Your task to perform on an android device: open app "Roku - Official Remote Control" (install if not already installed) and go to login screen Image 0: 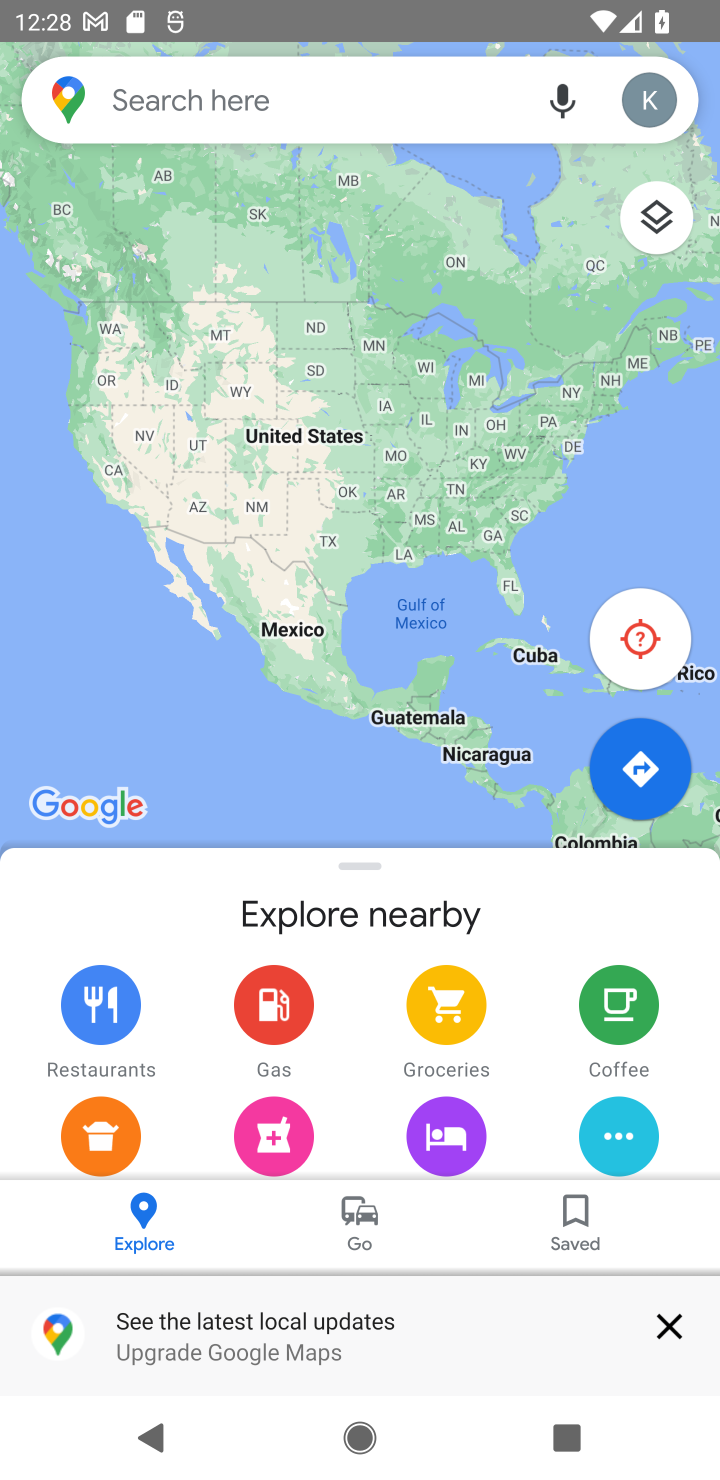
Step 0: press home button
Your task to perform on an android device: open app "Roku - Official Remote Control" (install if not already installed) and go to login screen Image 1: 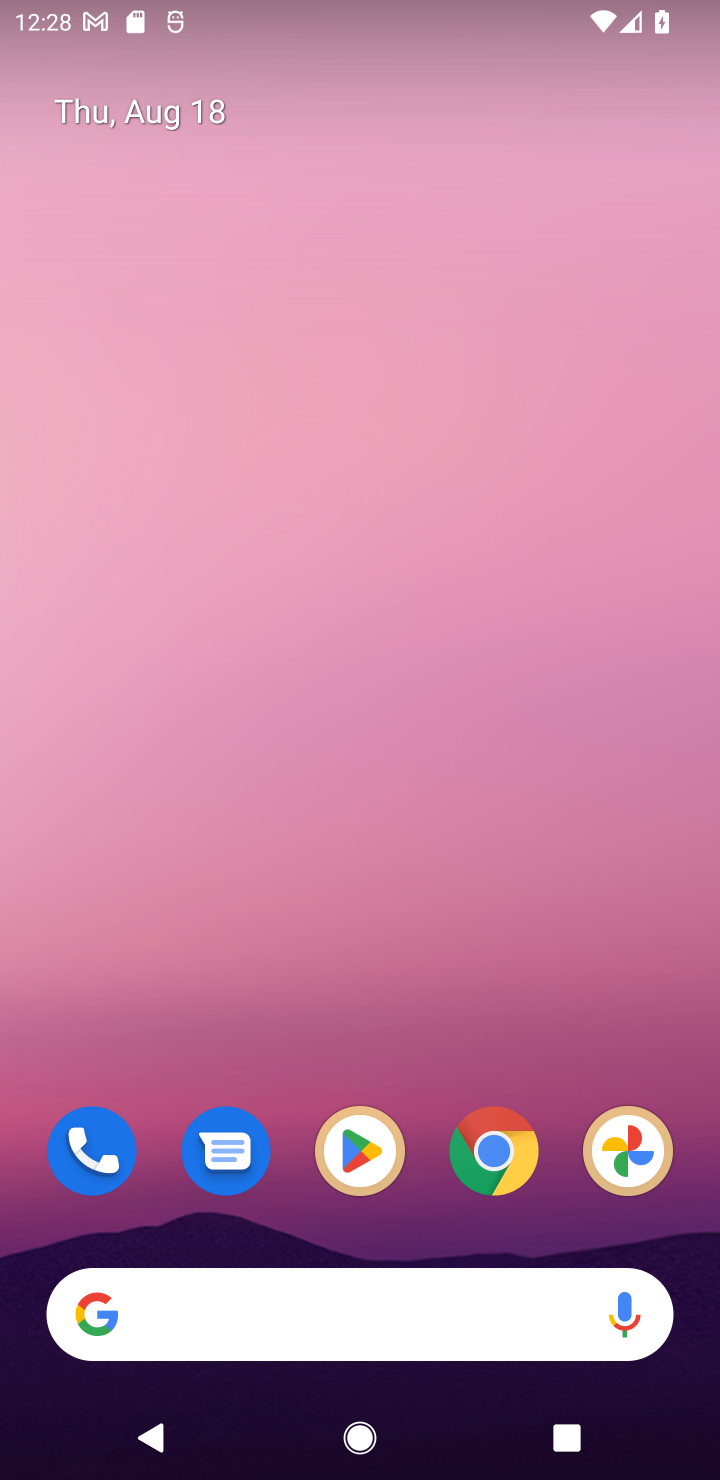
Step 1: click (355, 1140)
Your task to perform on an android device: open app "Roku - Official Remote Control" (install if not already installed) and go to login screen Image 2: 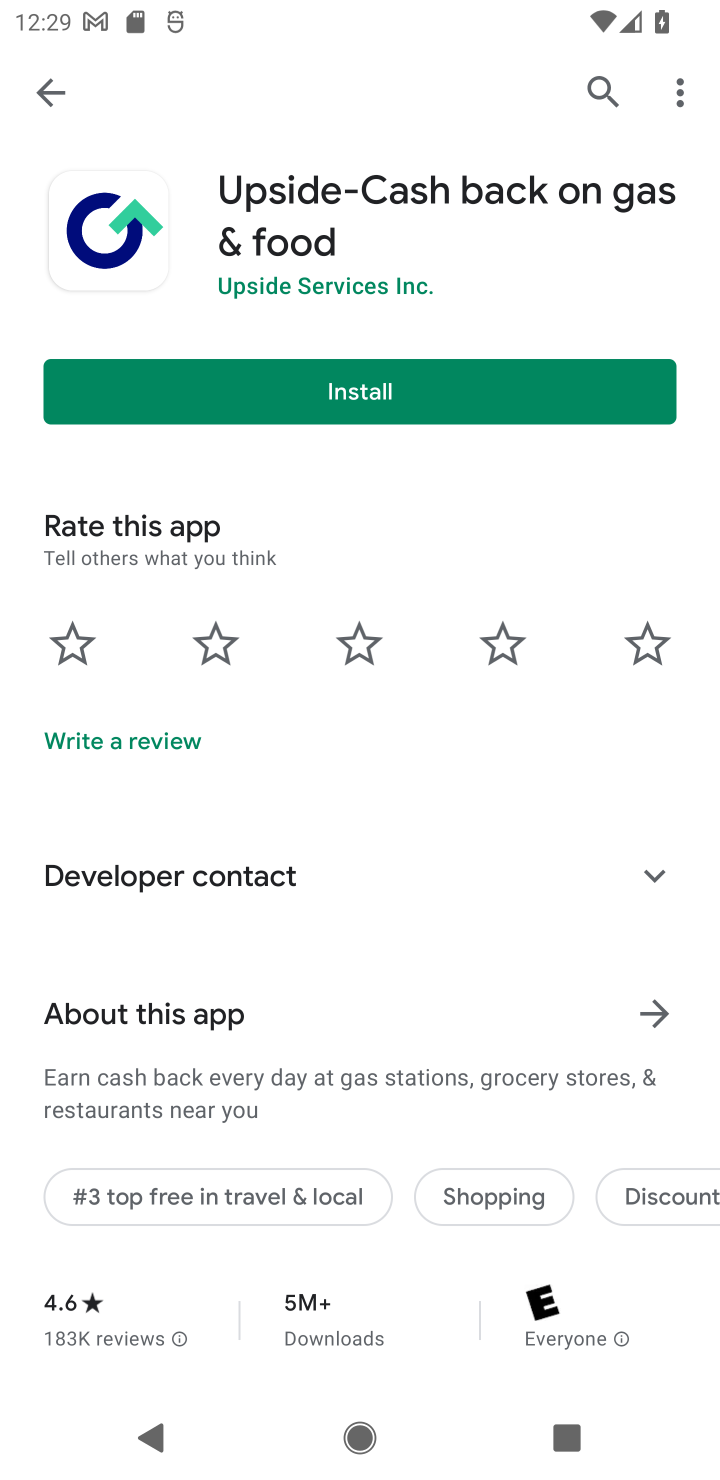
Step 2: click (40, 91)
Your task to perform on an android device: open app "Roku - Official Remote Control" (install if not already installed) and go to login screen Image 3: 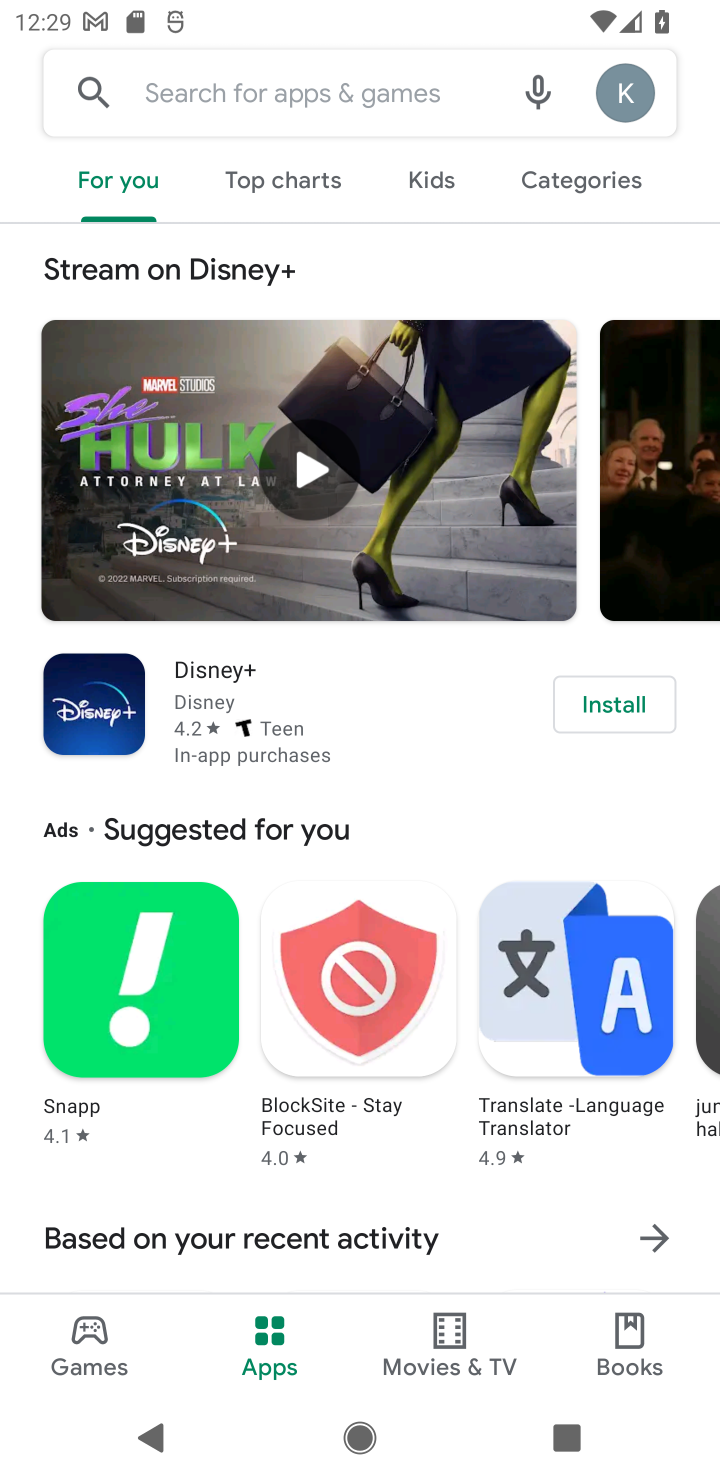
Step 3: click (277, 108)
Your task to perform on an android device: open app "Roku - Official Remote Control" (install if not already installed) and go to login screen Image 4: 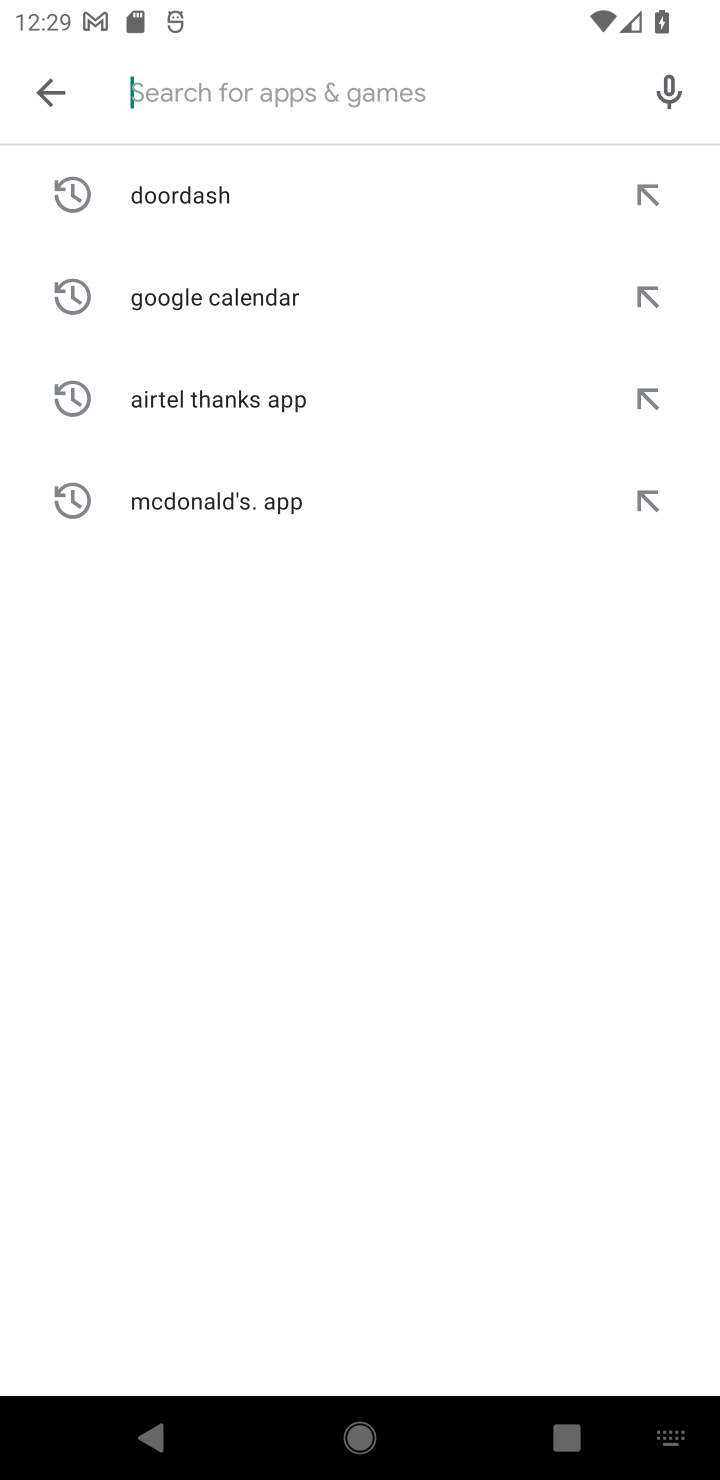
Step 4: type "Roku"
Your task to perform on an android device: open app "Roku - Official Remote Control" (install if not already installed) and go to login screen Image 5: 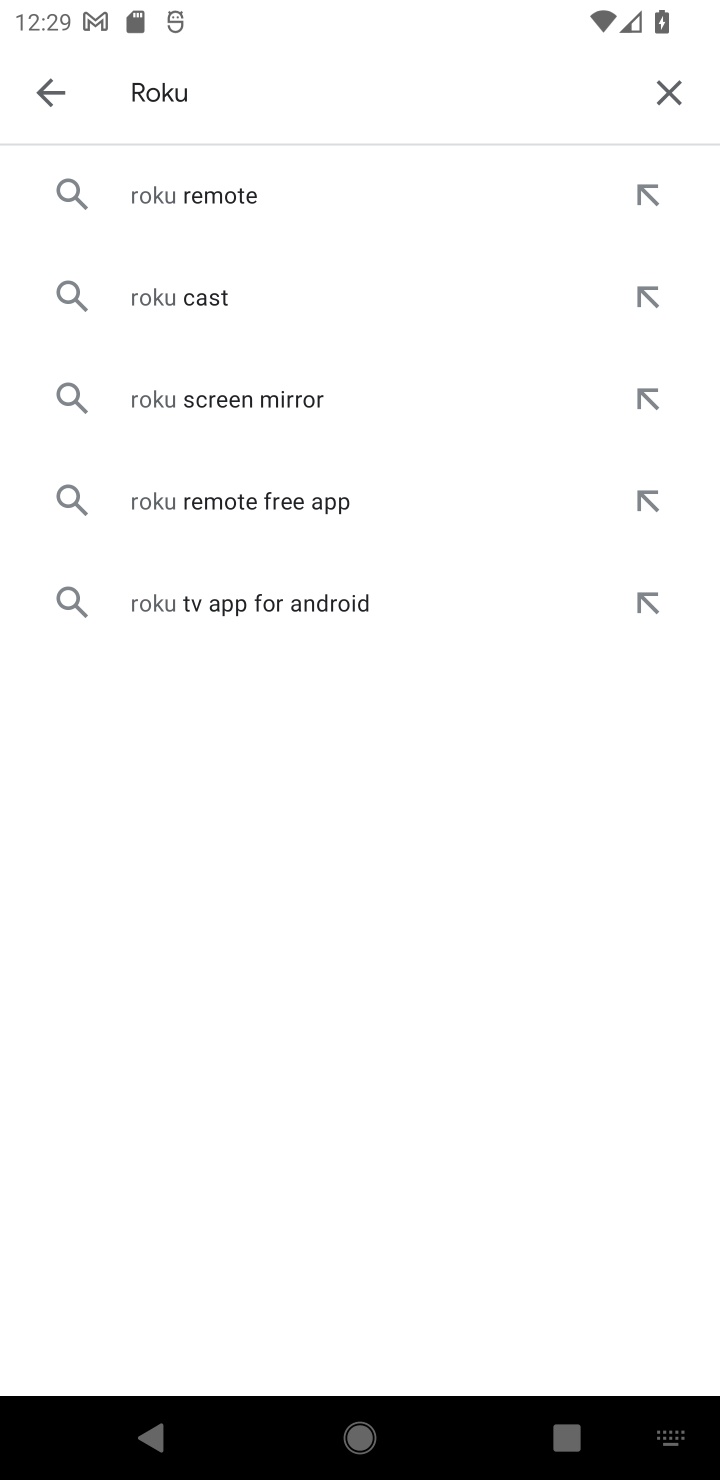
Step 5: click (661, 97)
Your task to perform on an android device: open app "Roku - Official Remote Control" (install if not already installed) and go to login screen Image 6: 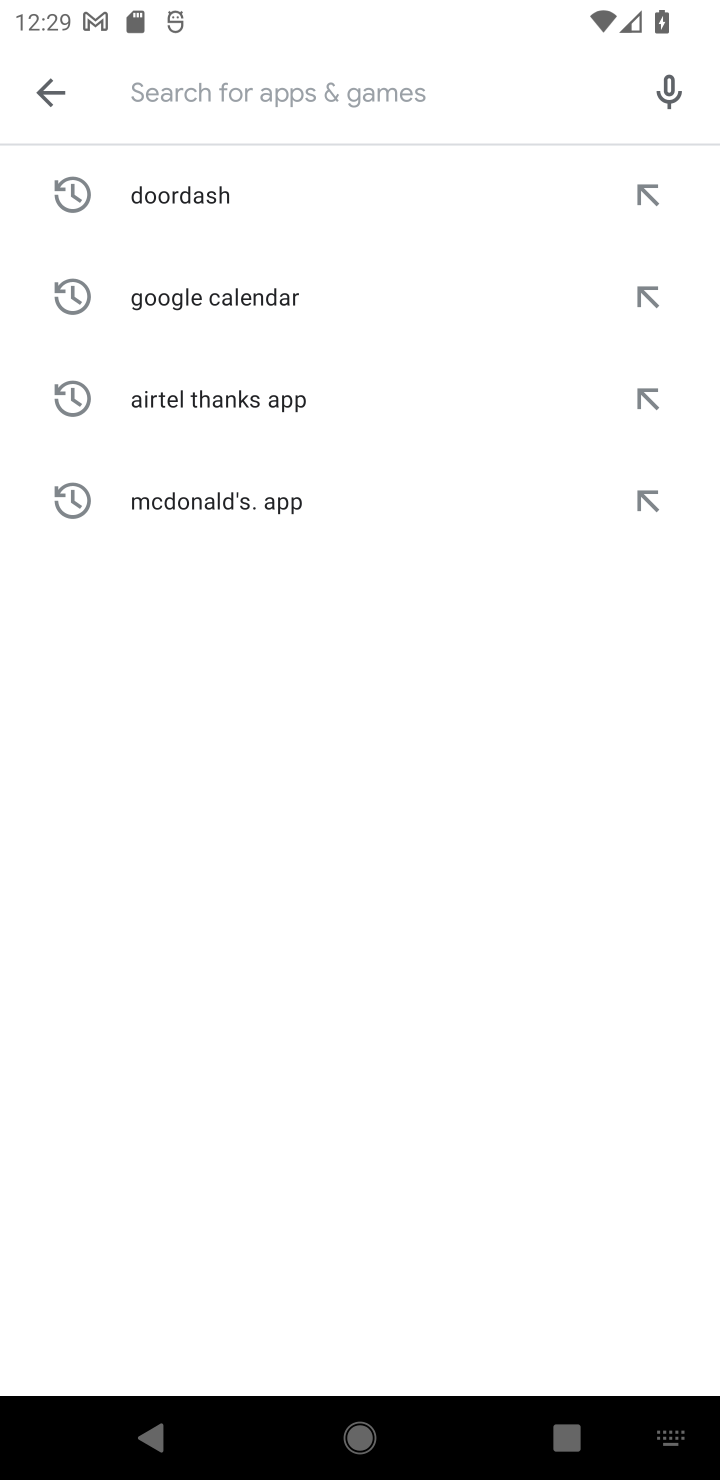
Step 6: click (263, 86)
Your task to perform on an android device: open app "Roku - Official Remote Control" (install if not already installed) and go to login screen Image 7: 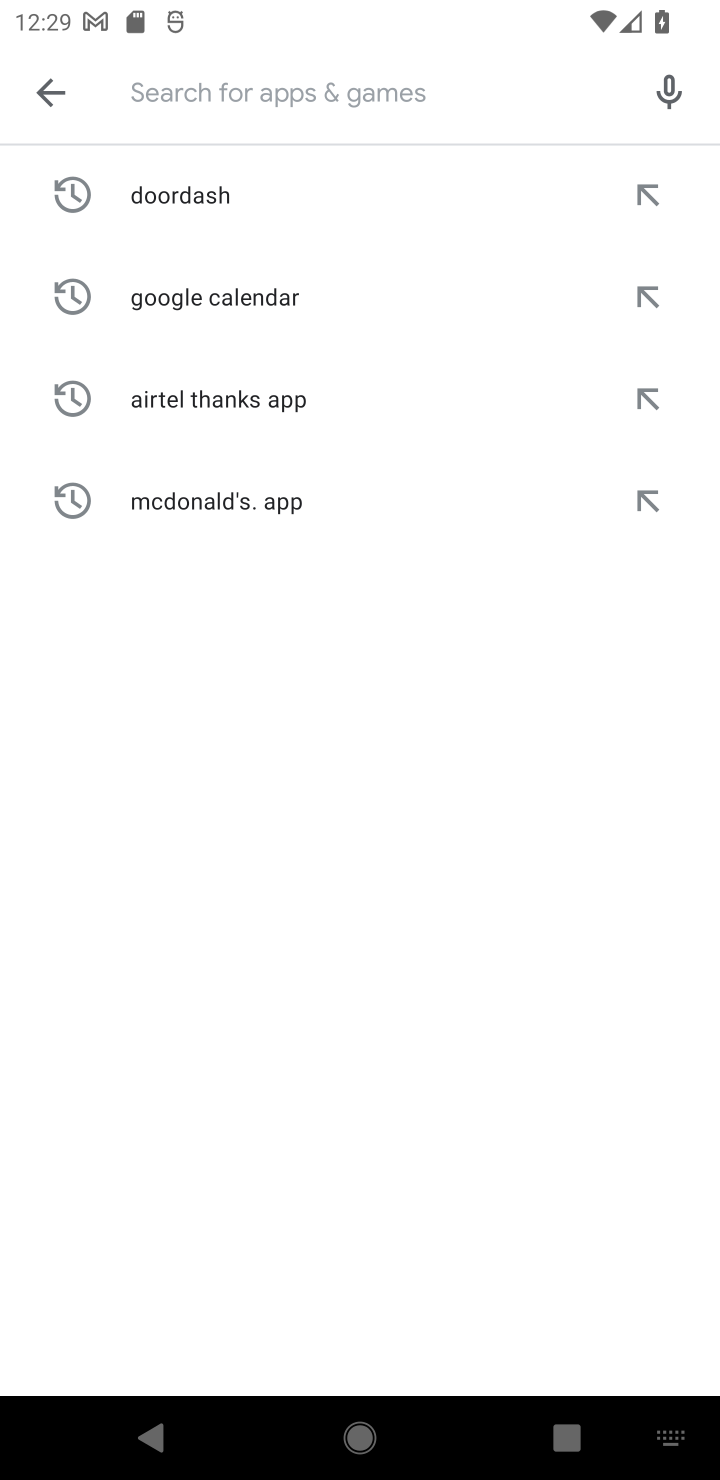
Step 7: type "Roku - Official Remote Control"
Your task to perform on an android device: open app "Roku - Official Remote Control" (install if not already installed) and go to login screen Image 8: 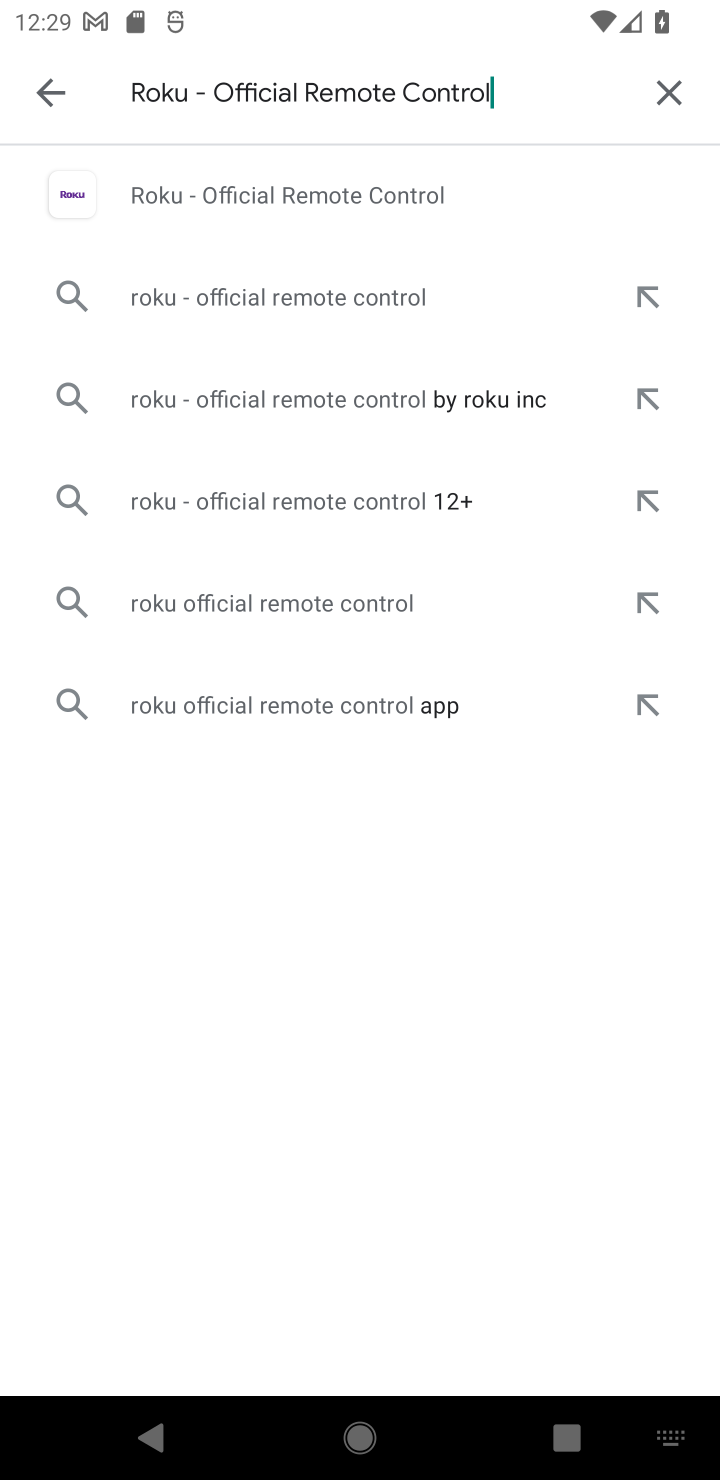
Step 8: click (244, 192)
Your task to perform on an android device: open app "Roku - Official Remote Control" (install if not already installed) and go to login screen Image 9: 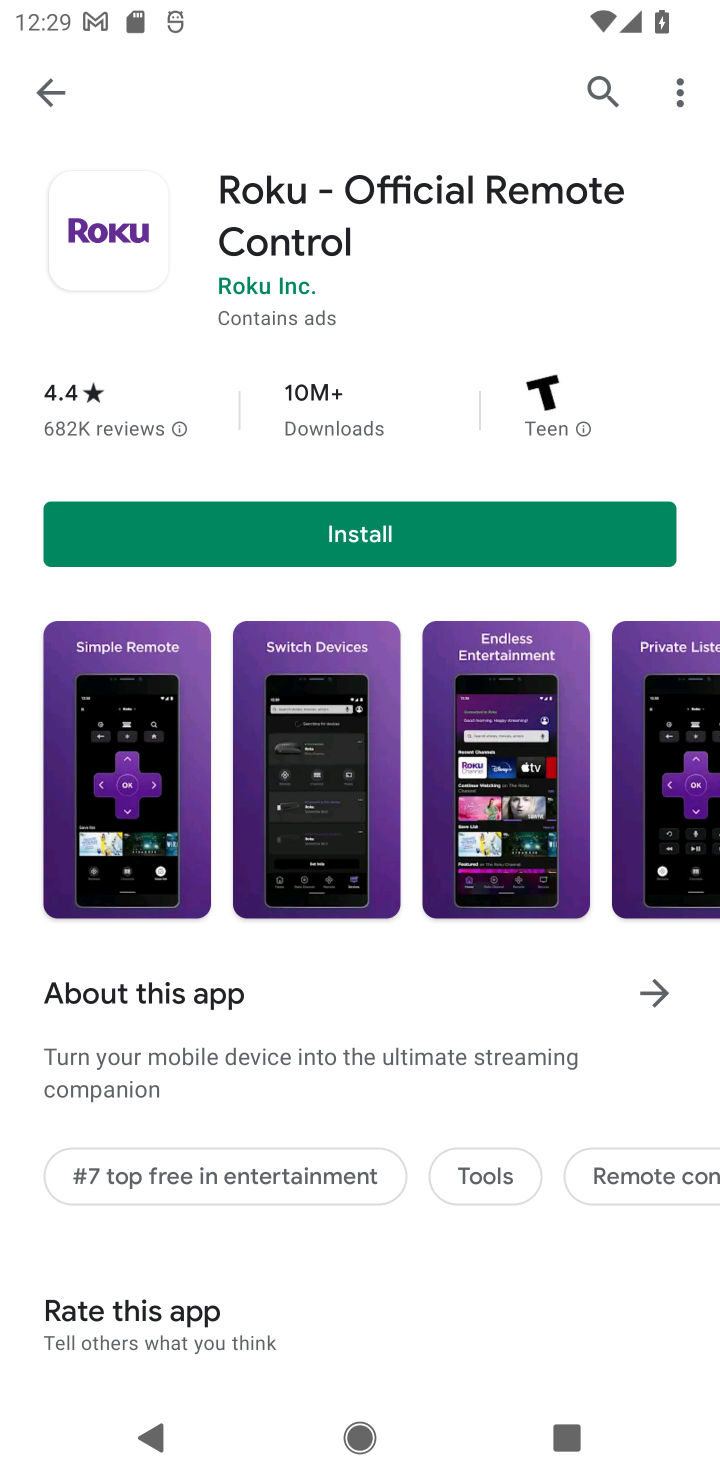
Step 9: click (314, 532)
Your task to perform on an android device: open app "Roku - Official Remote Control" (install if not already installed) and go to login screen Image 10: 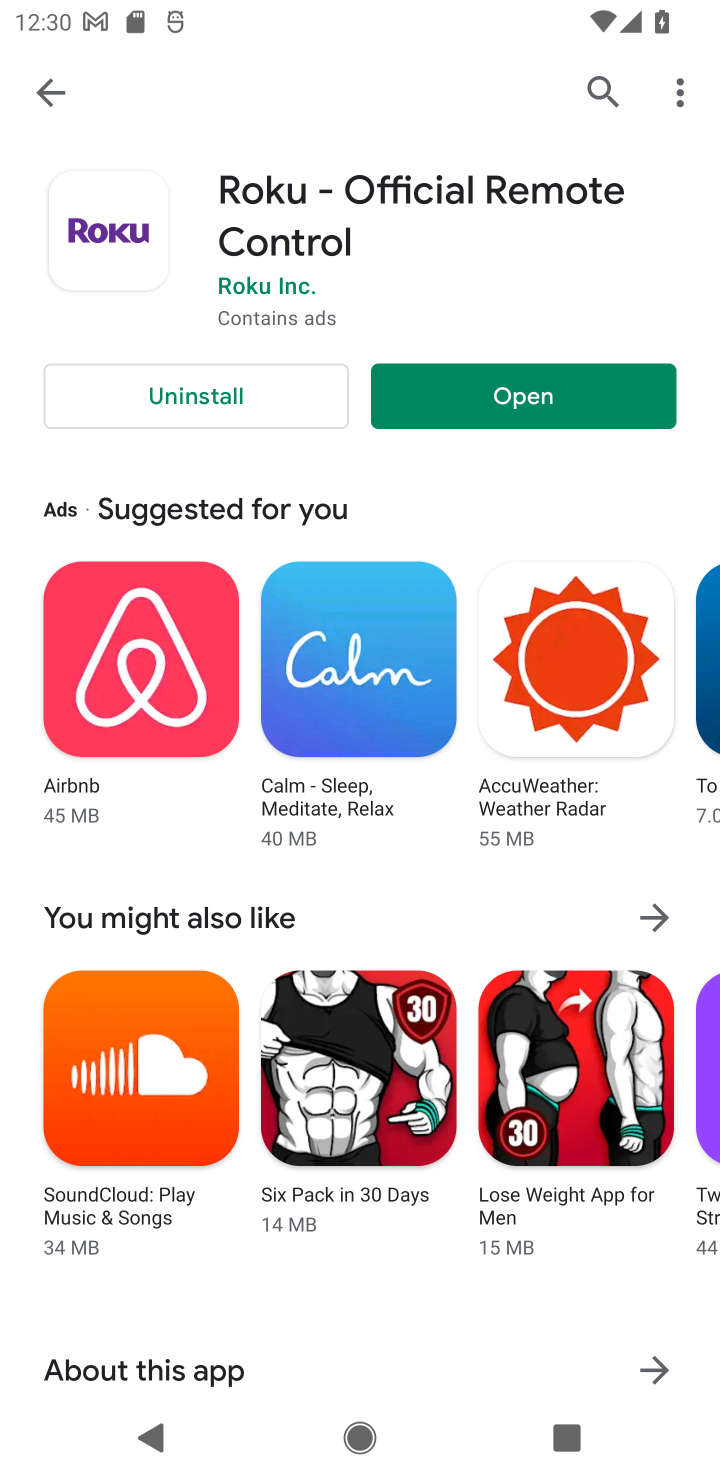
Step 10: click (453, 386)
Your task to perform on an android device: open app "Roku - Official Remote Control" (install if not already installed) and go to login screen Image 11: 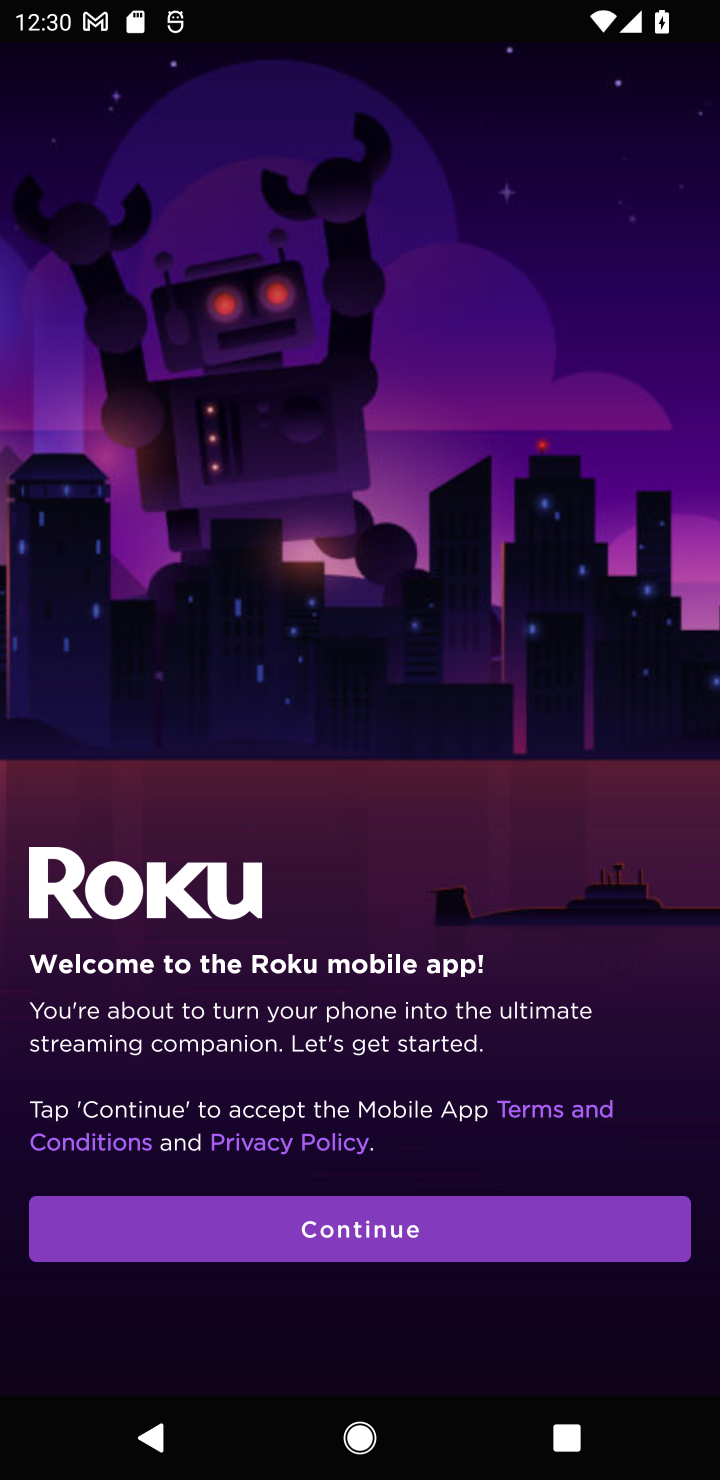
Step 11: click (356, 1223)
Your task to perform on an android device: open app "Roku - Official Remote Control" (install if not already installed) and go to login screen Image 12: 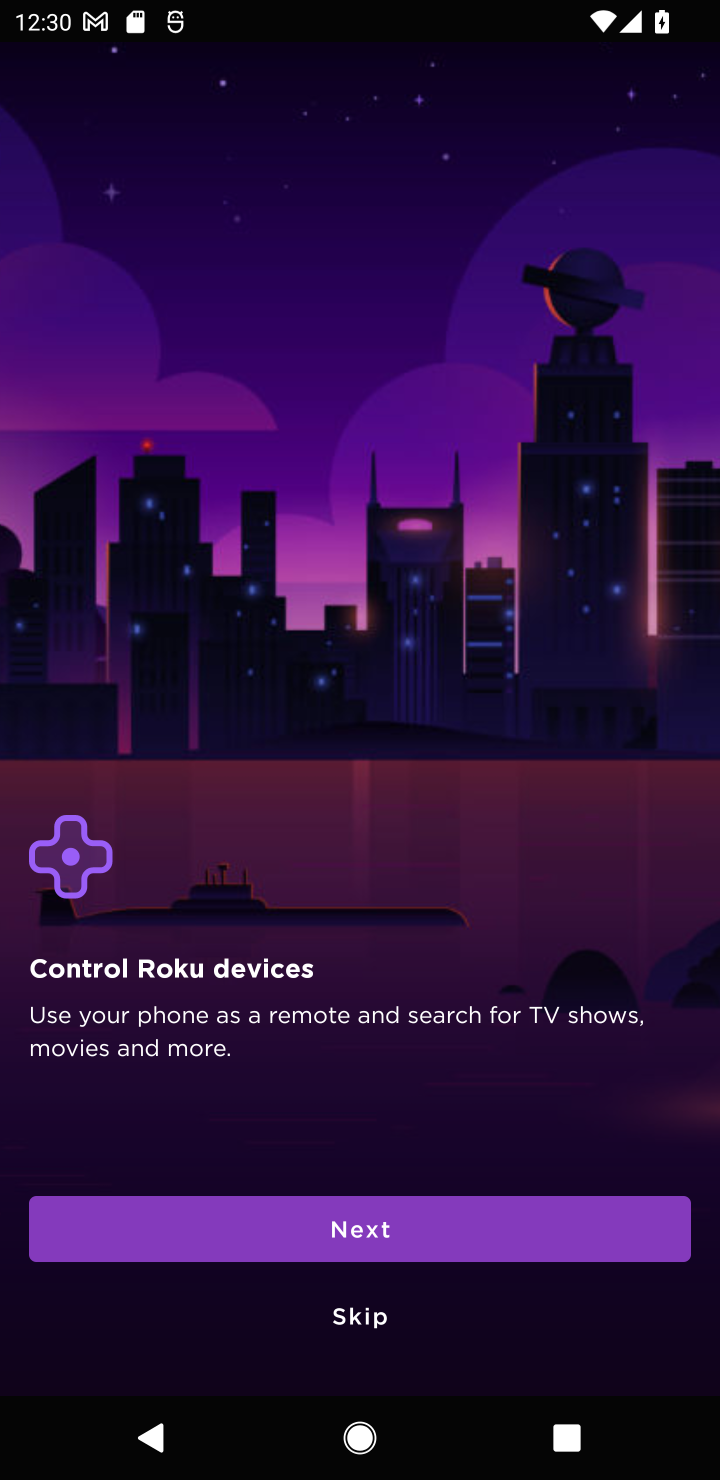
Step 12: click (370, 1322)
Your task to perform on an android device: open app "Roku - Official Remote Control" (install if not already installed) and go to login screen Image 13: 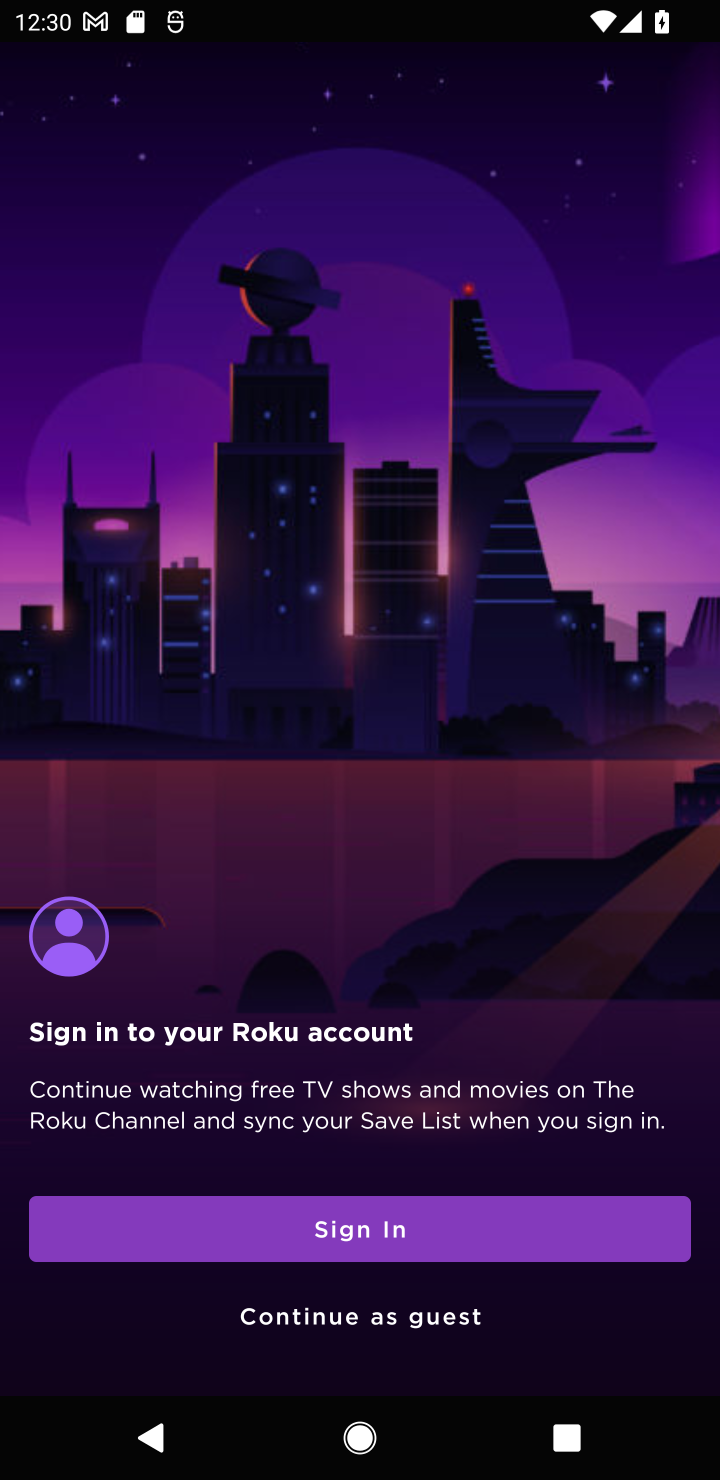
Step 13: click (367, 1240)
Your task to perform on an android device: open app "Roku - Official Remote Control" (install if not already installed) and go to login screen Image 14: 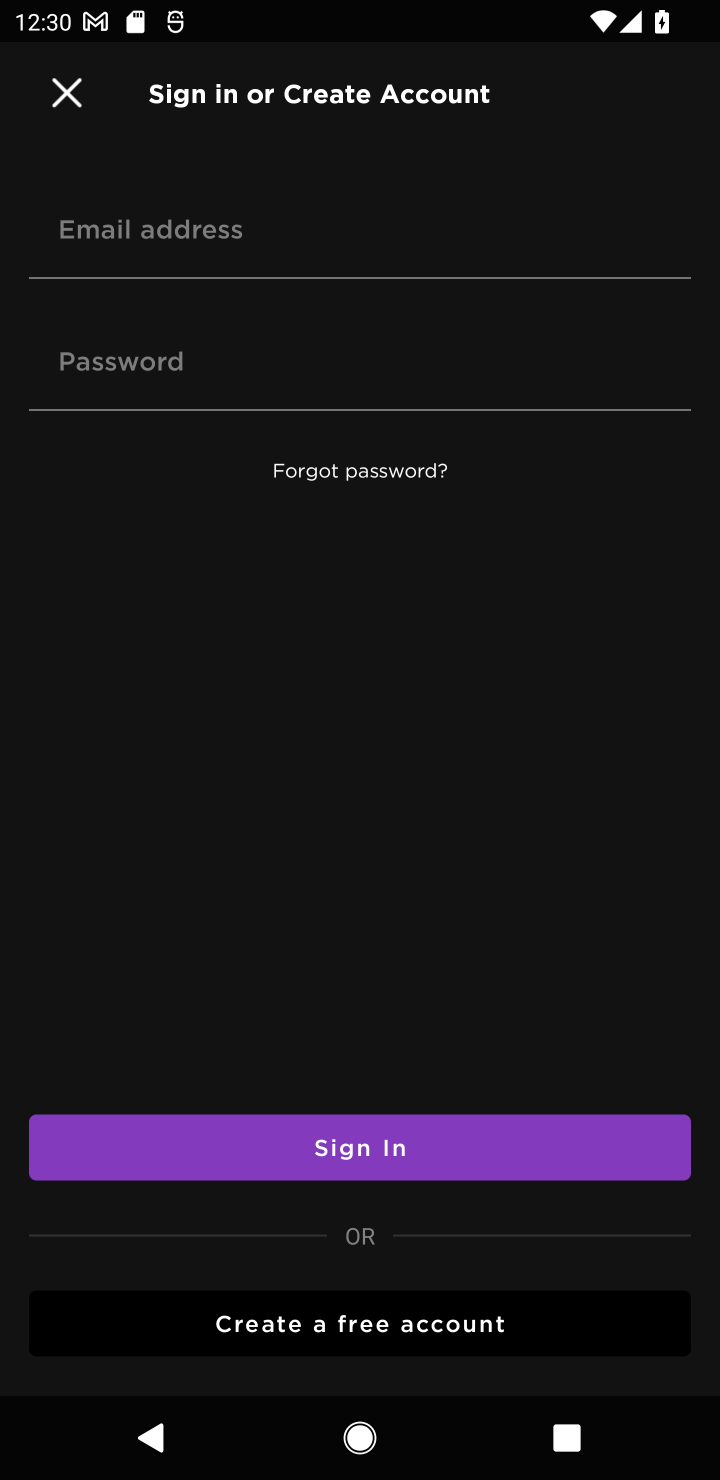
Step 14: task complete